Your task to perform on an android device: Go to Yahoo.com Image 0: 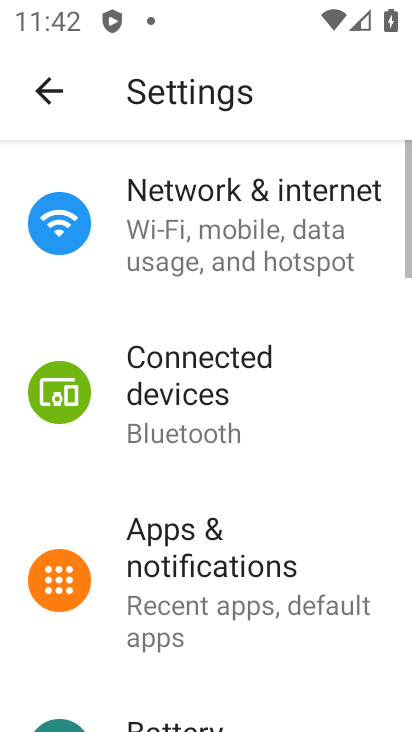
Step 0: drag from (384, 731) to (205, 583)
Your task to perform on an android device: Go to Yahoo.com Image 1: 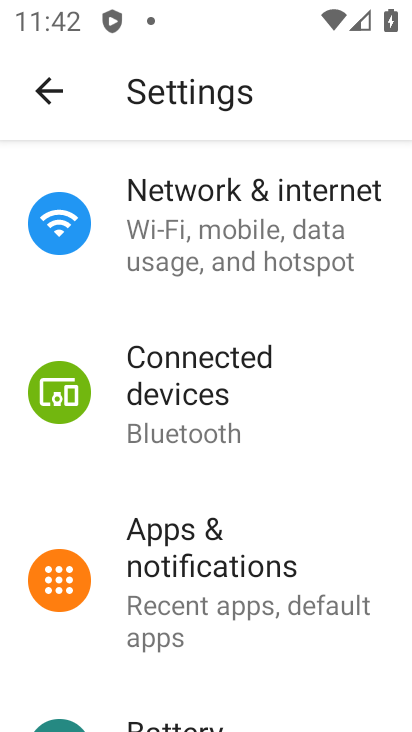
Step 1: press home button
Your task to perform on an android device: Go to Yahoo.com Image 2: 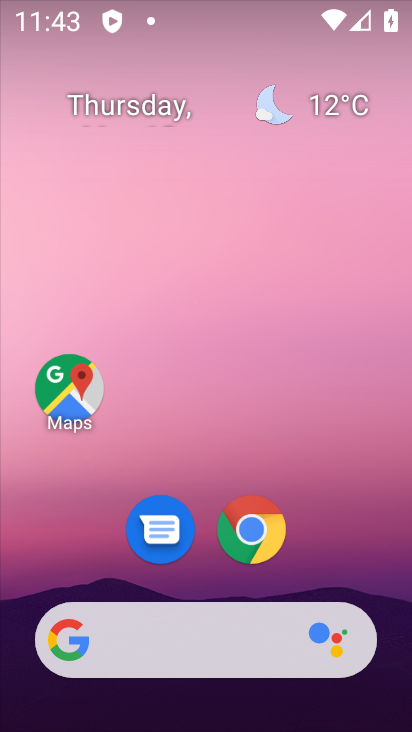
Step 2: drag from (338, 560) to (309, 252)
Your task to perform on an android device: Go to Yahoo.com Image 3: 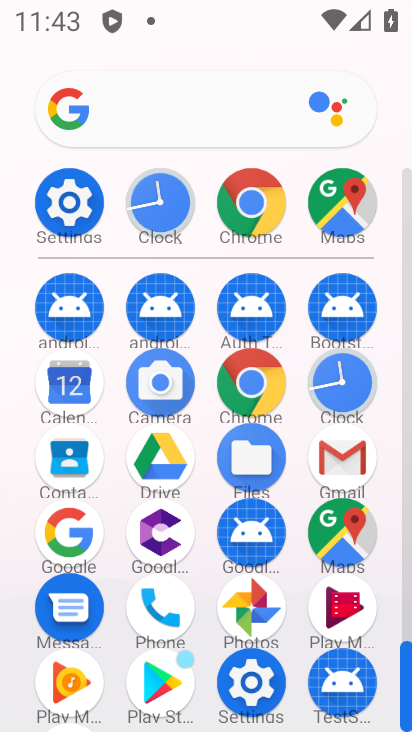
Step 3: drag from (251, 589) to (280, 288)
Your task to perform on an android device: Go to Yahoo.com Image 4: 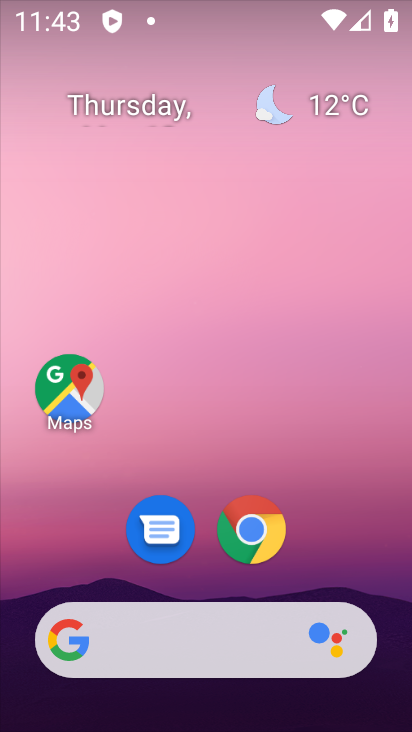
Step 4: drag from (296, 565) to (324, 141)
Your task to perform on an android device: Go to Yahoo.com Image 5: 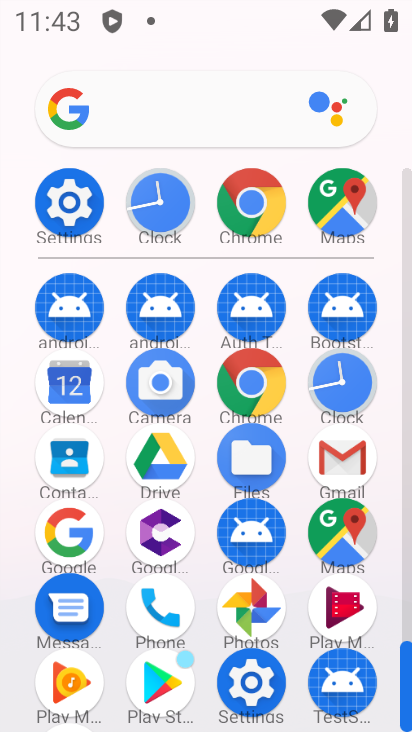
Step 5: click (248, 186)
Your task to perform on an android device: Go to Yahoo.com Image 6: 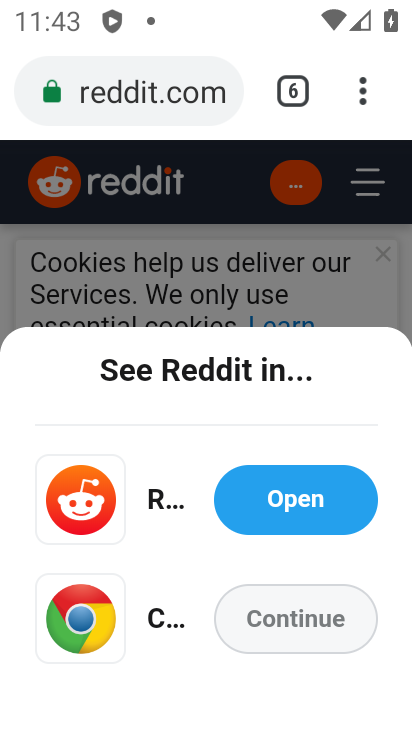
Step 6: click (349, 95)
Your task to perform on an android device: Go to Yahoo.com Image 7: 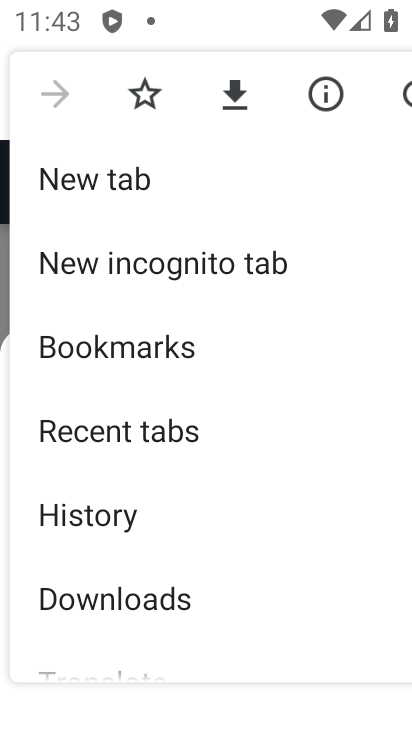
Step 7: click (86, 166)
Your task to perform on an android device: Go to Yahoo.com Image 8: 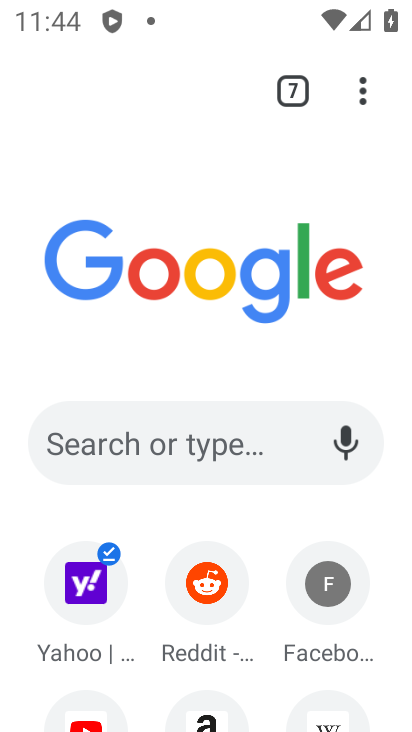
Step 8: click (76, 584)
Your task to perform on an android device: Go to Yahoo.com Image 9: 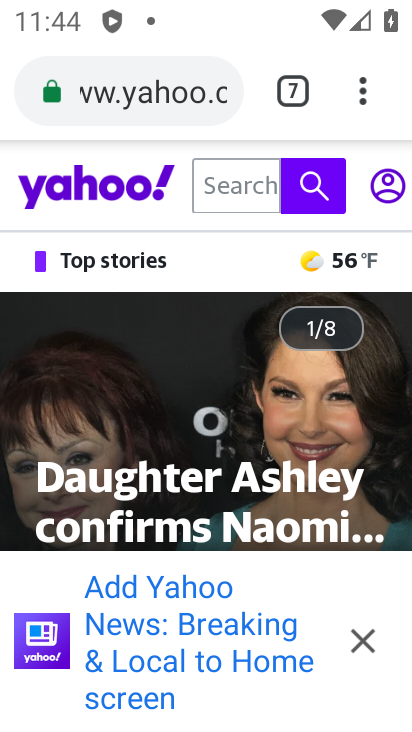
Step 9: drag from (212, 672) to (284, 329)
Your task to perform on an android device: Go to Yahoo.com Image 10: 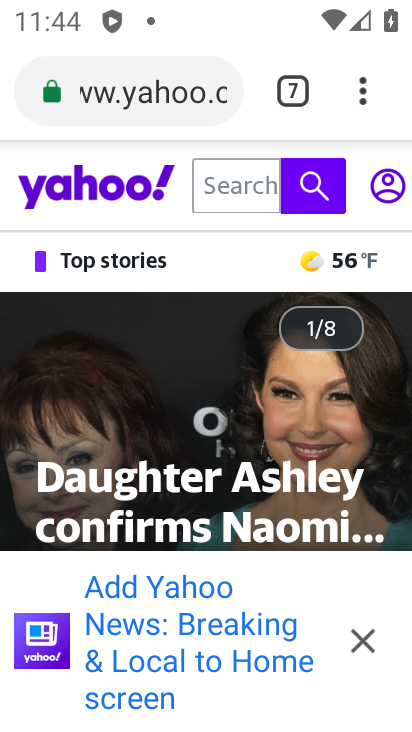
Step 10: click (359, 630)
Your task to perform on an android device: Go to Yahoo.com Image 11: 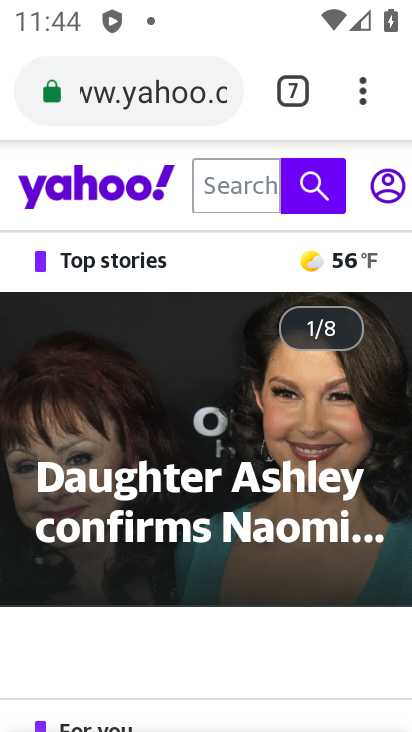
Step 11: task complete